Your task to perform on an android device: toggle priority inbox in the gmail app Image 0: 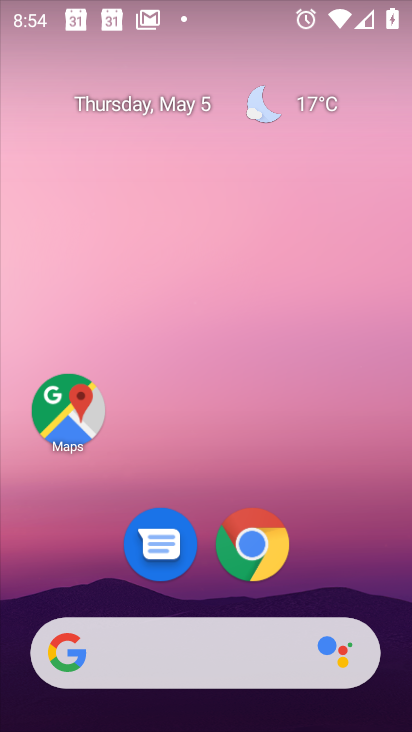
Step 0: task complete